Your task to perform on an android device: What's on my calendar tomorrow? Image 0: 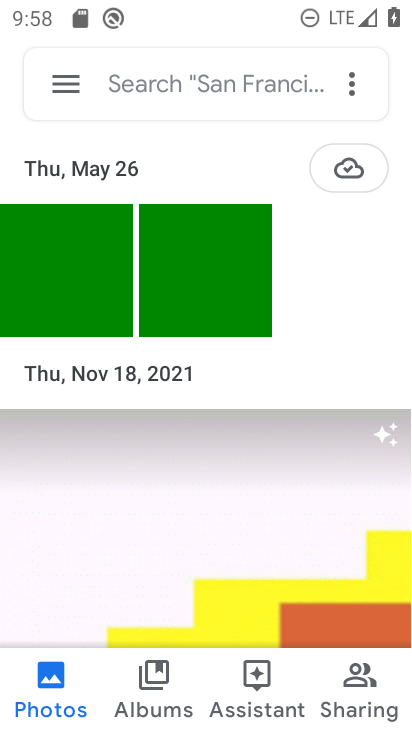
Step 0: press home button
Your task to perform on an android device: What's on my calendar tomorrow? Image 1: 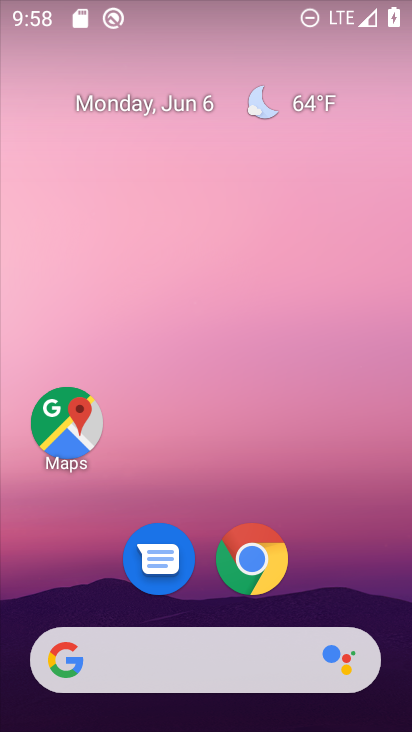
Step 1: drag from (241, 712) to (235, 95)
Your task to perform on an android device: What's on my calendar tomorrow? Image 2: 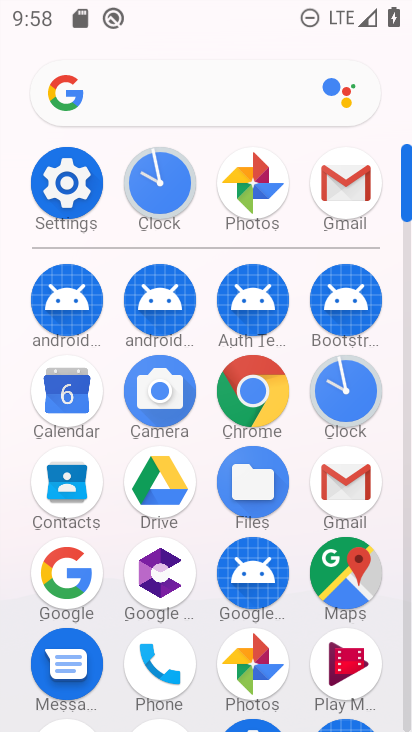
Step 2: click (56, 414)
Your task to perform on an android device: What's on my calendar tomorrow? Image 3: 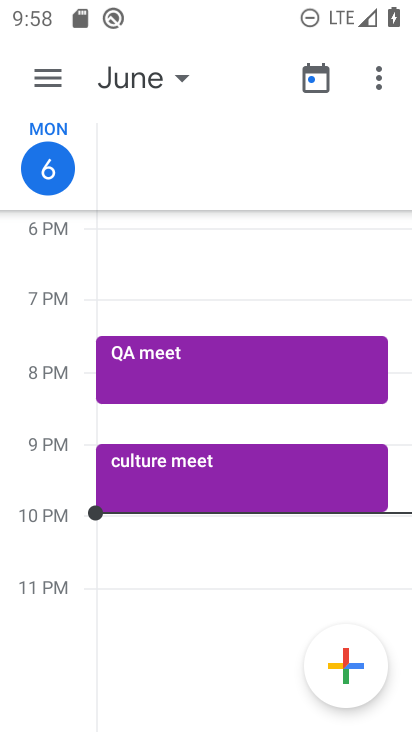
Step 3: click (153, 78)
Your task to perform on an android device: What's on my calendar tomorrow? Image 4: 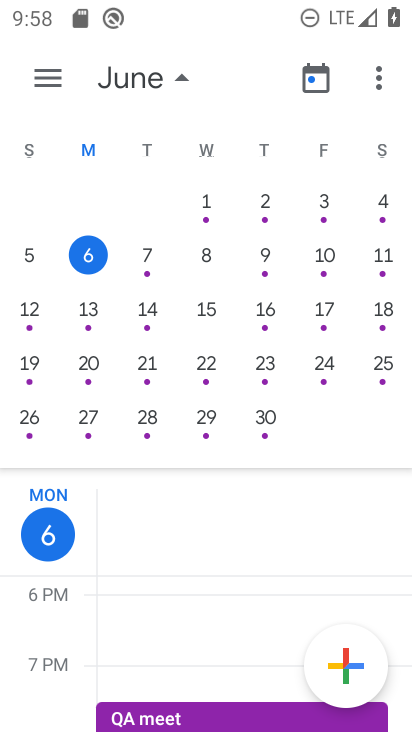
Step 4: click (153, 254)
Your task to perform on an android device: What's on my calendar tomorrow? Image 5: 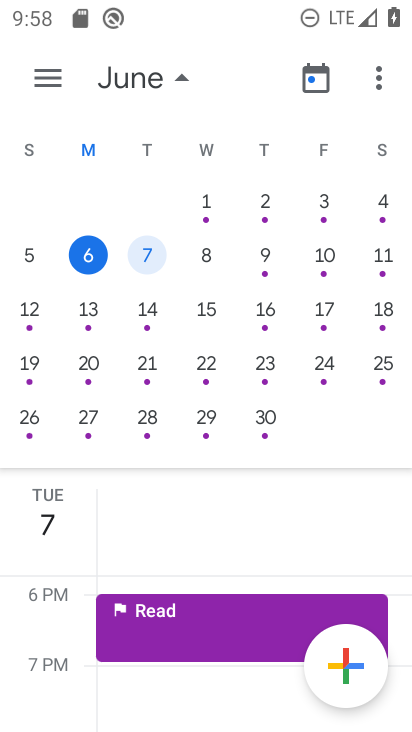
Step 5: click (153, 254)
Your task to perform on an android device: What's on my calendar tomorrow? Image 6: 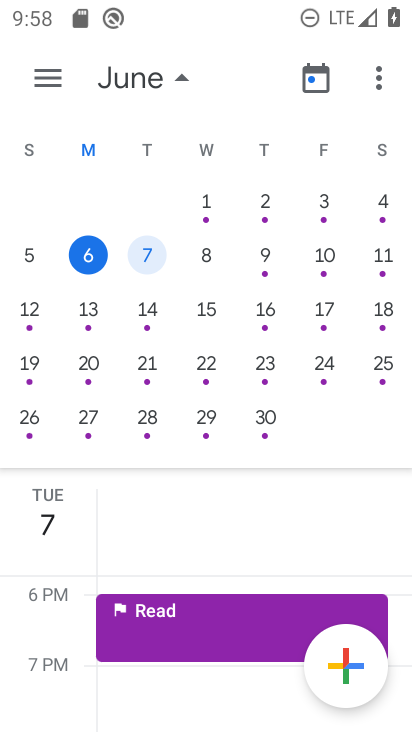
Step 6: click (182, 79)
Your task to perform on an android device: What's on my calendar tomorrow? Image 7: 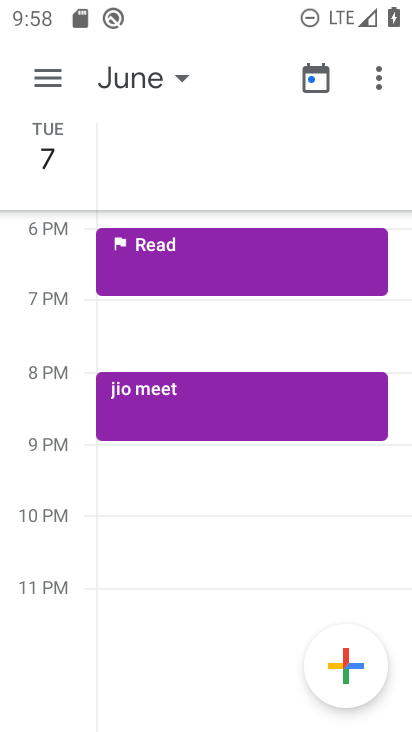
Step 7: task complete